Your task to perform on an android device: Open calendar and show me the first week of next month Image 0: 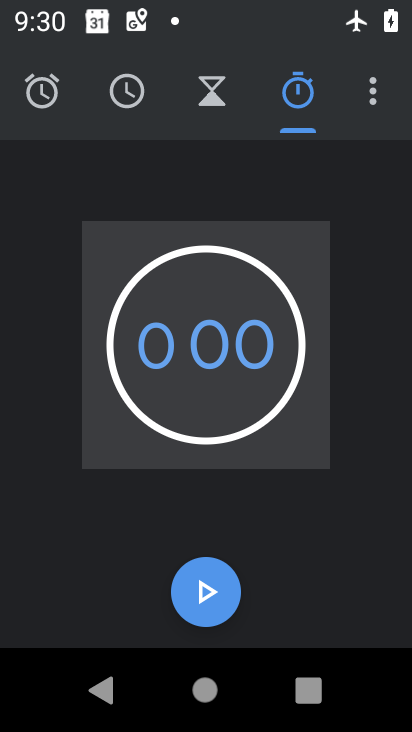
Step 0: press home button
Your task to perform on an android device: Open calendar and show me the first week of next month Image 1: 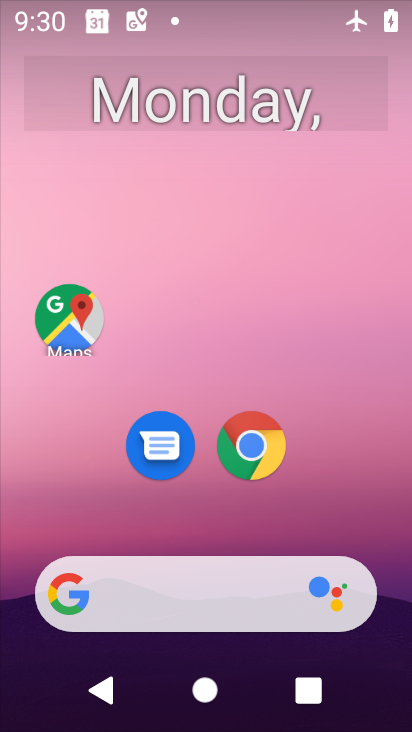
Step 1: drag from (250, 690) to (282, 22)
Your task to perform on an android device: Open calendar and show me the first week of next month Image 2: 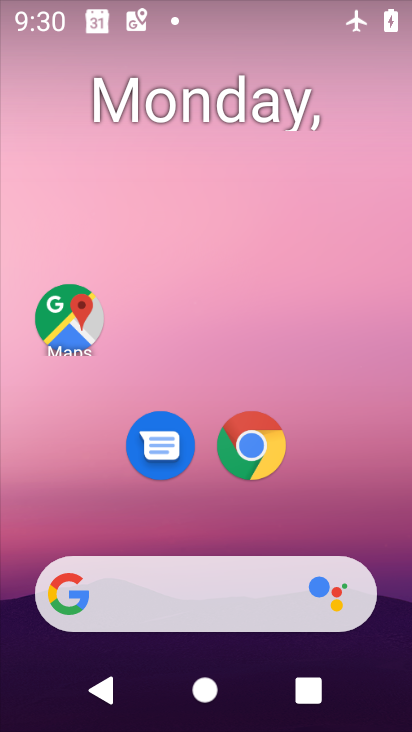
Step 2: drag from (246, 705) to (246, 55)
Your task to perform on an android device: Open calendar and show me the first week of next month Image 3: 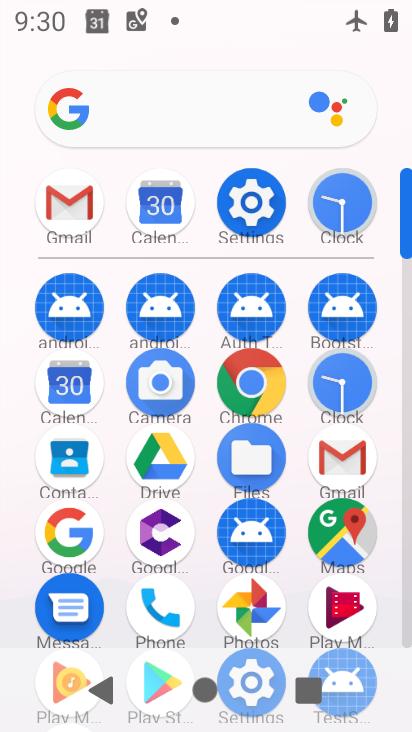
Step 3: click (57, 370)
Your task to perform on an android device: Open calendar and show me the first week of next month Image 4: 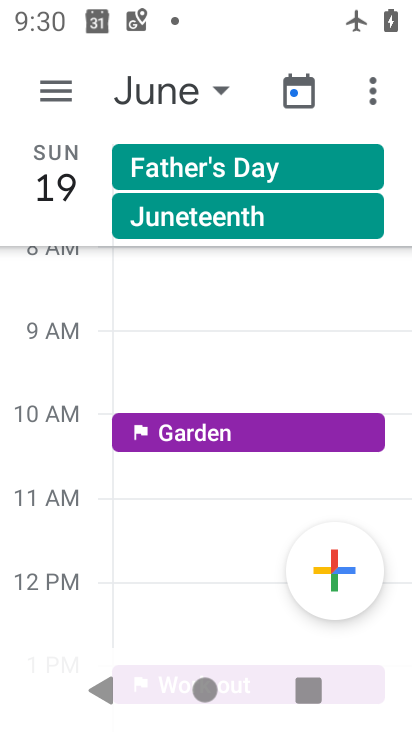
Step 4: click (150, 100)
Your task to perform on an android device: Open calendar and show me the first week of next month Image 5: 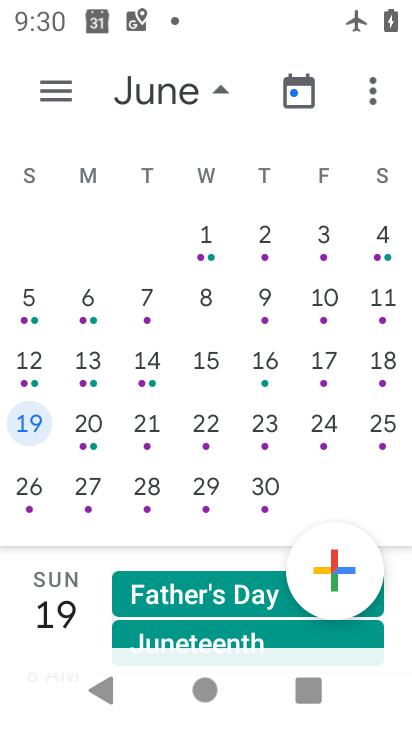
Step 5: click (209, 245)
Your task to perform on an android device: Open calendar and show me the first week of next month Image 6: 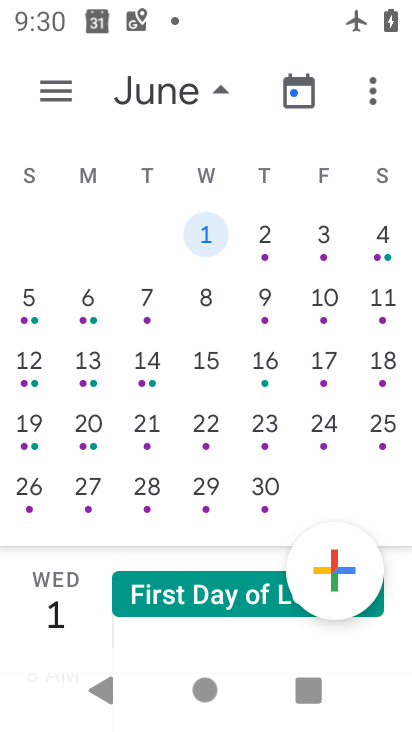
Step 6: task complete